Your task to perform on an android device: Go to Google Image 0: 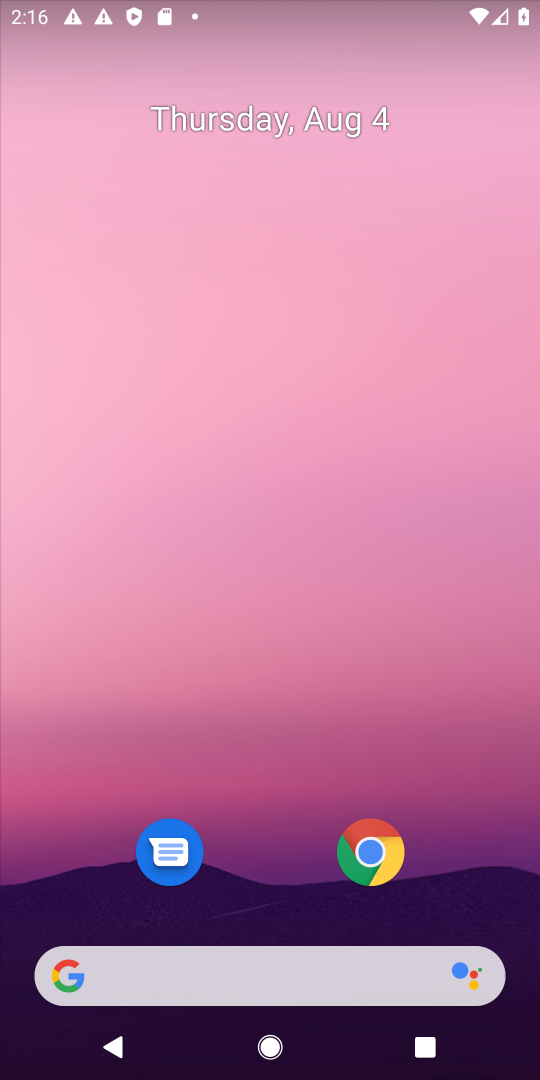
Step 0: drag from (267, 902) to (383, 17)
Your task to perform on an android device: Go to Google Image 1: 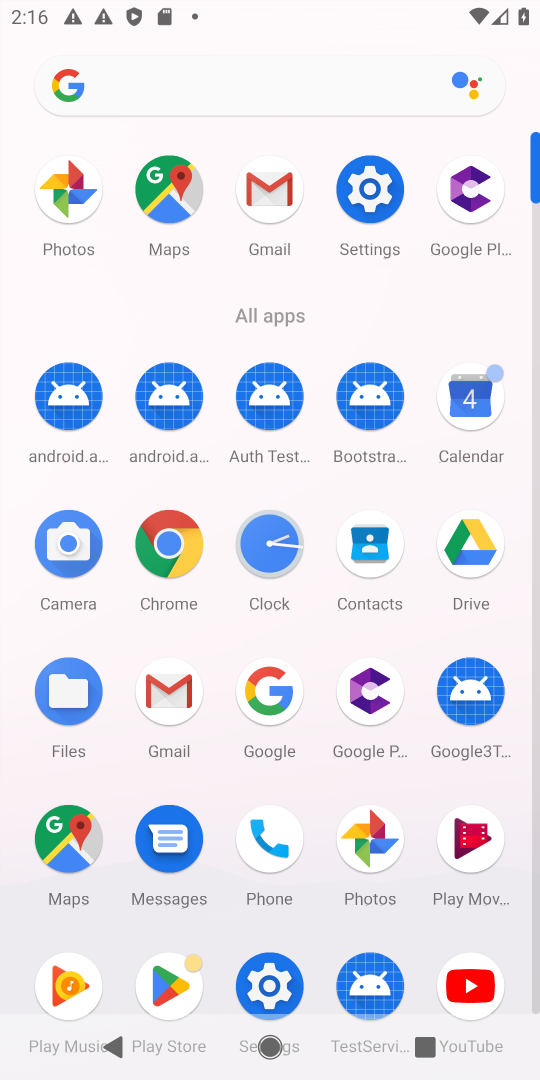
Step 1: click (262, 686)
Your task to perform on an android device: Go to Google Image 2: 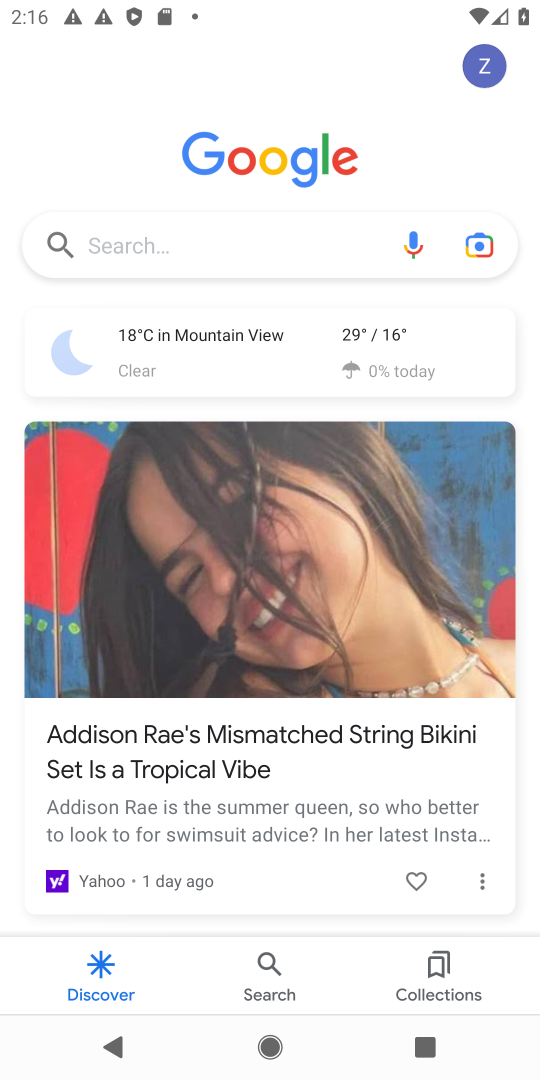
Step 2: task complete